Your task to perform on an android device: Open Google Maps Image 0: 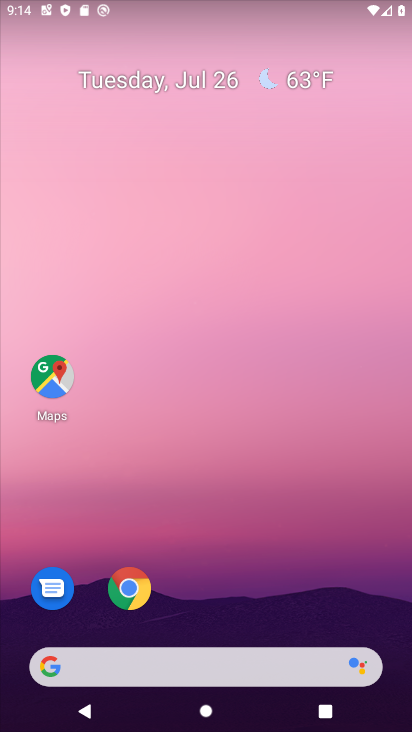
Step 0: click (42, 375)
Your task to perform on an android device: Open Google Maps Image 1: 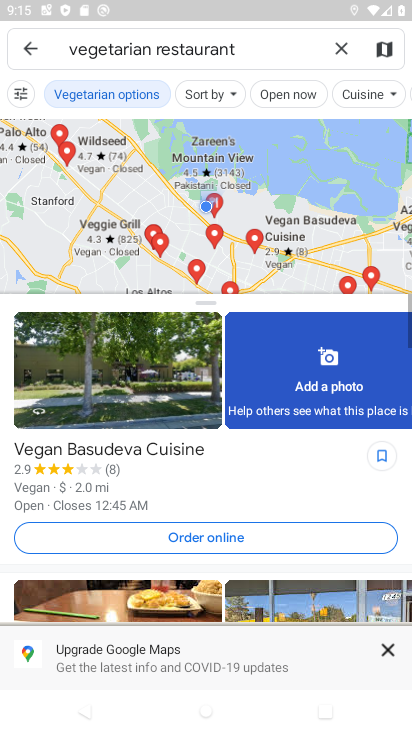
Step 1: task complete